Your task to perform on an android device: turn vacation reply on in the gmail app Image 0: 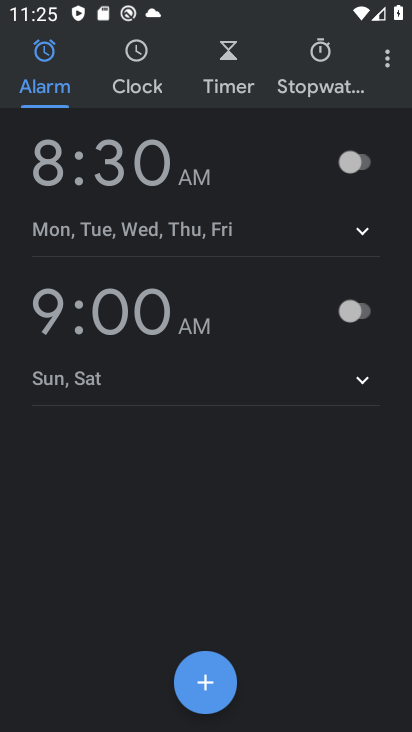
Step 0: press home button
Your task to perform on an android device: turn vacation reply on in the gmail app Image 1: 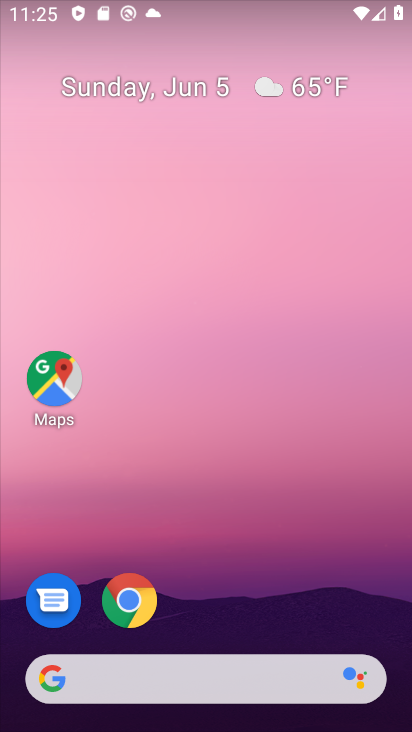
Step 1: drag from (383, 612) to (333, 197)
Your task to perform on an android device: turn vacation reply on in the gmail app Image 2: 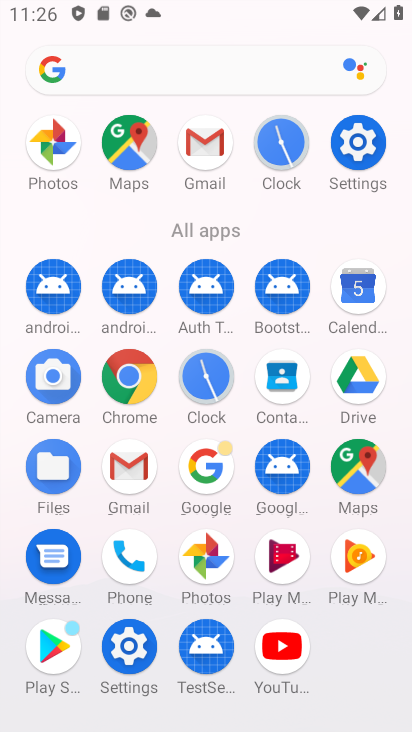
Step 2: click (202, 139)
Your task to perform on an android device: turn vacation reply on in the gmail app Image 3: 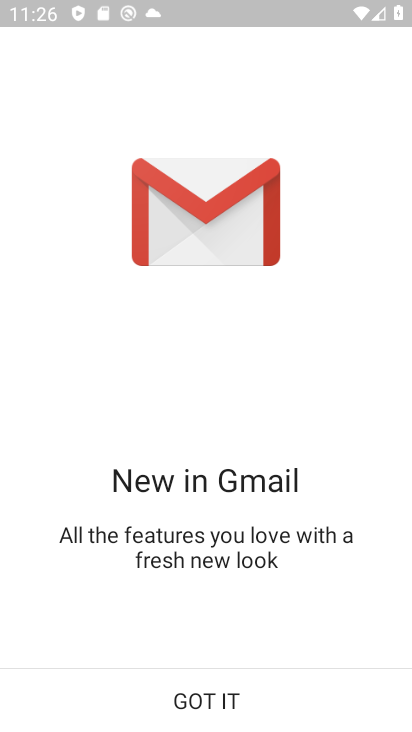
Step 3: click (212, 697)
Your task to perform on an android device: turn vacation reply on in the gmail app Image 4: 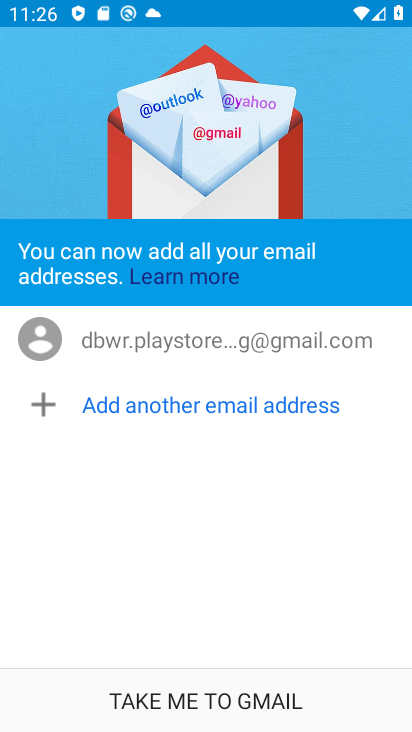
Step 4: click (212, 697)
Your task to perform on an android device: turn vacation reply on in the gmail app Image 5: 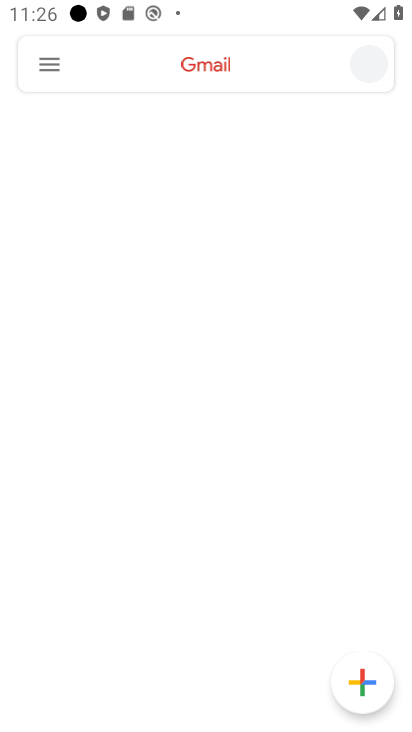
Step 5: click (212, 697)
Your task to perform on an android device: turn vacation reply on in the gmail app Image 6: 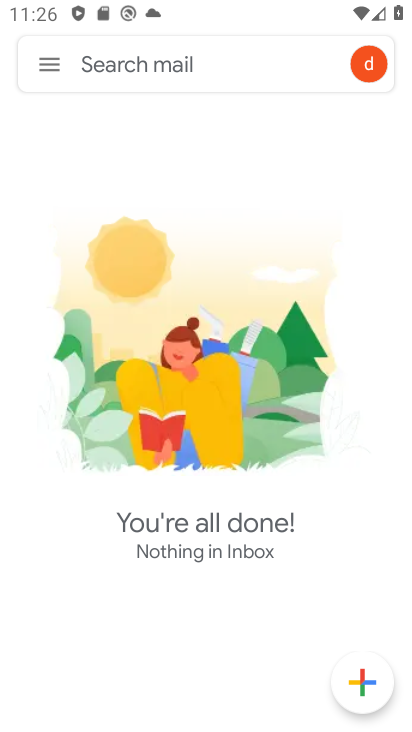
Step 6: click (39, 60)
Your task to perform on an android device: turn vacation reply on in the gmail app Image 7: 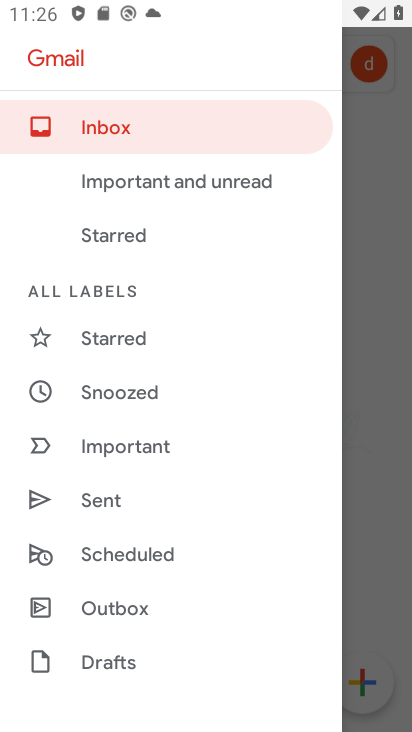
Step 7: drag from (191, 686) to (191, 292)
Your task to perform on an android device: turn vacation reply on in the gmail app Image 8: 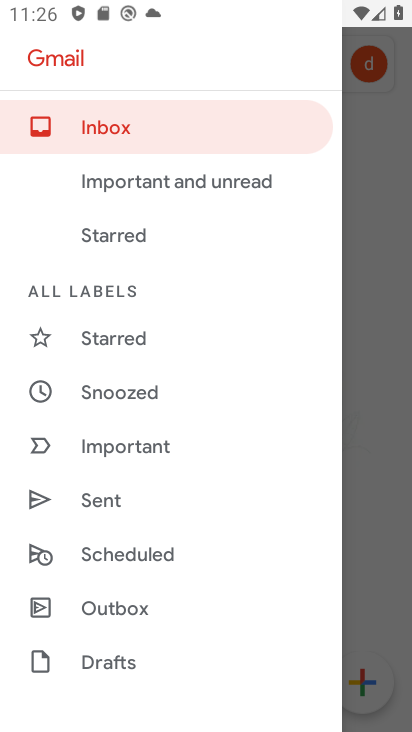
Step 8: drag from (242, 646) to (214, 223)
Your task to perform on an android device: turn vacation reply on in the gmail app Image 9: 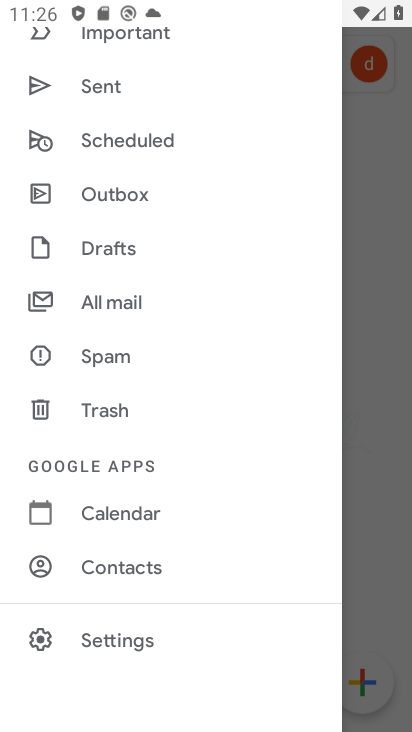
Step 9: click (111, 651)
Your task to perform on an android device: turn vacation reply on in the gmail app Image 10: 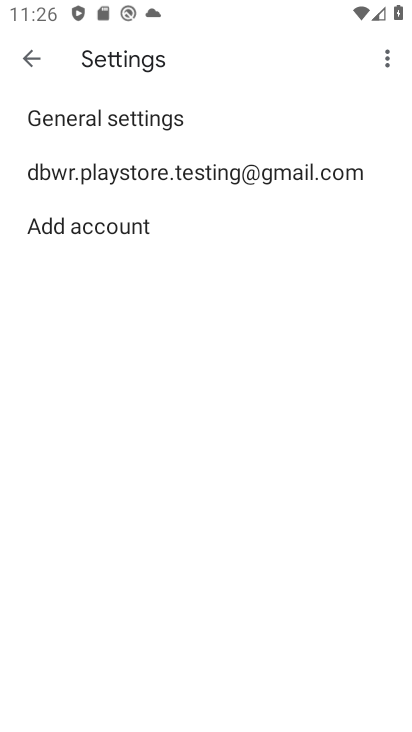
Step 10: click (114, 173)
Your task to perform on an android device: turn vacation reply on in the gmail app Image 11: 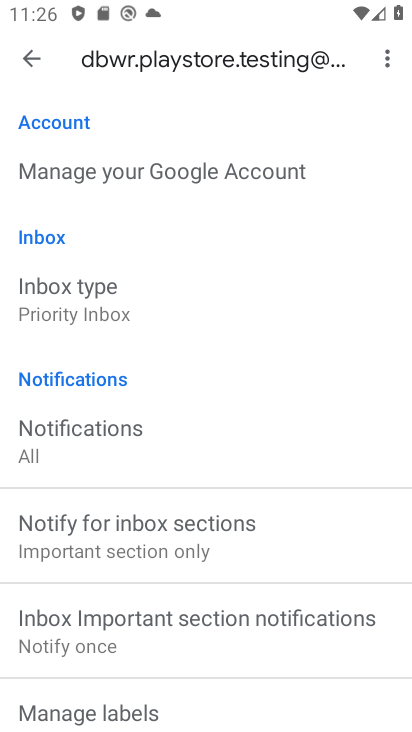
Step 11: drag from (277, 656) to (167, 212)
Your task to perform on an android device: turn vacation reply on in the gmail app Image 12: 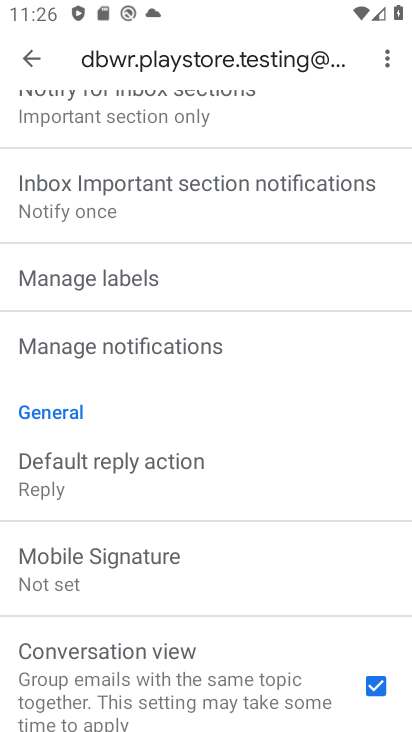
Step 12: drag from (207, 558) to (194, 334)
Your task to perform on an android device: turn vacation reply on in the gmail app Image 13: 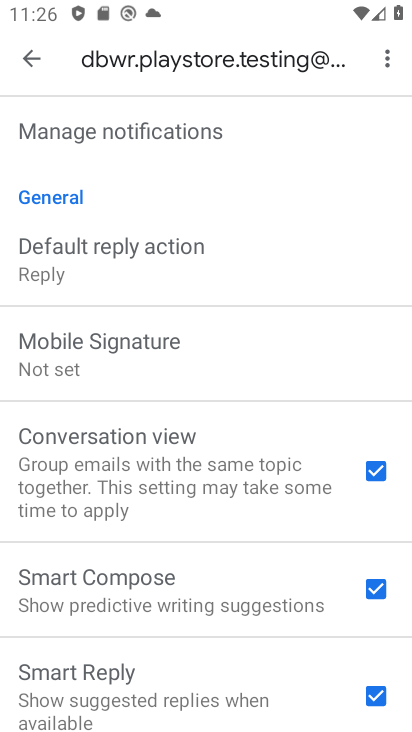
Step 13: drag from (205, 638) to (204, 320)
Your task to perform on an android device: turn vacation reply on in the gmail app Image 14: 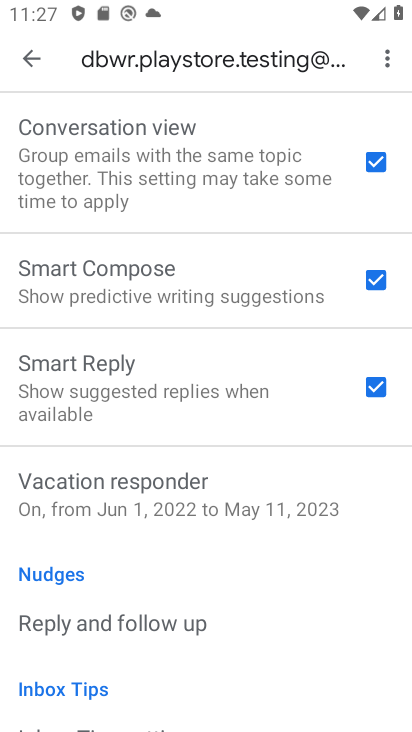
Step 14: click (158, 481)
Your task to perform on an android device: turn vacation reply on in the gmail app Image 15: 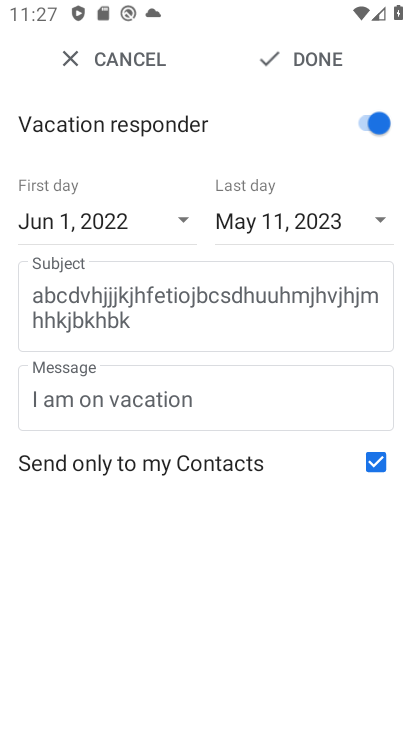
Step 15: task complete